Your task to perform on an android device: toggle location history Image 0: 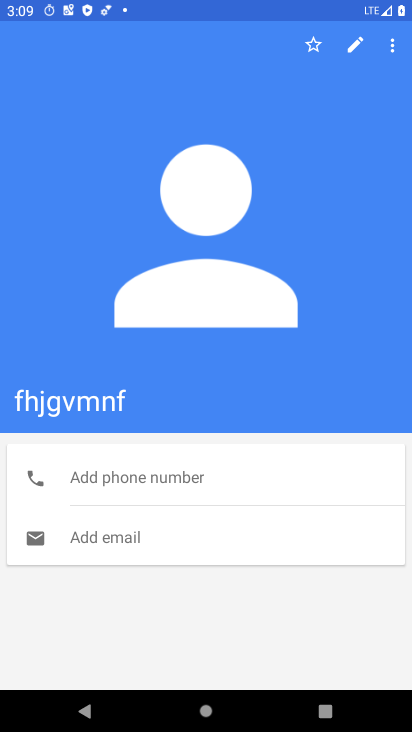
Step 0: press home button
Your task to perform on an android device: toggle location history Image 1: 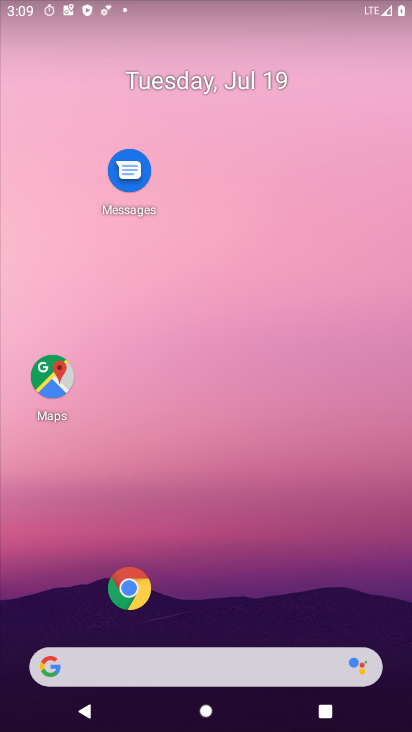
Step 1: drag from (31, 693) to (126, 208)
Your task to perform on an android device: toggle location history Image 2: 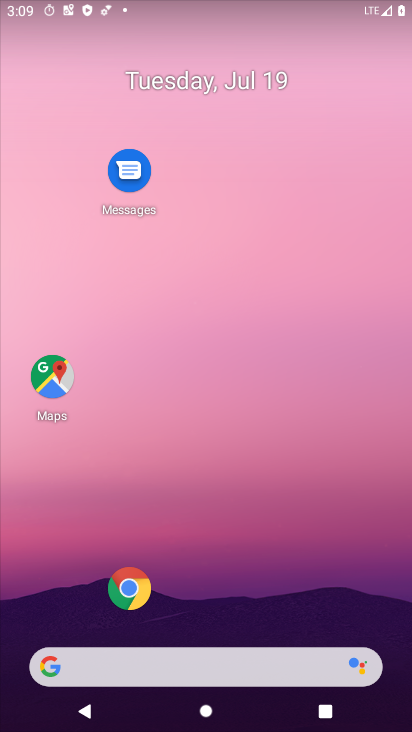
Step 2: drag from (6, 678) to (152, 54)
Your task to perform on an android device: toggle location history Image 3: 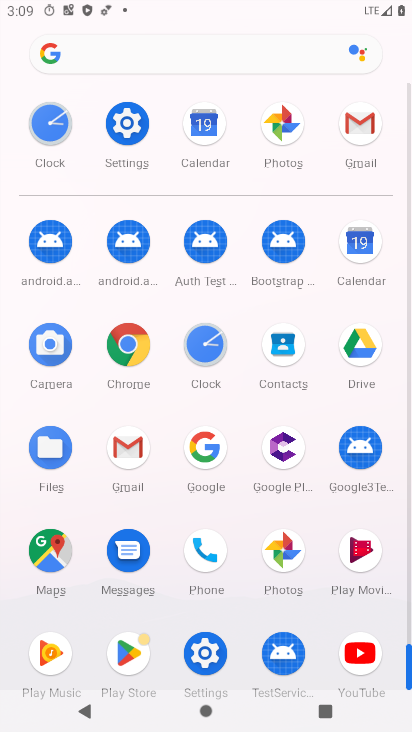
Step 3: click (211, 668)
Your task to perform on an android device: toggle location history Image 4: 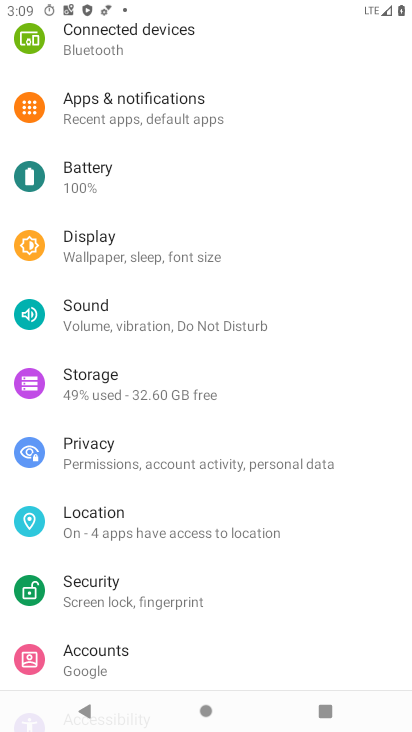
Step 4: click (110, 529)
Your task to perform on an android device: toggle location history Image 5: 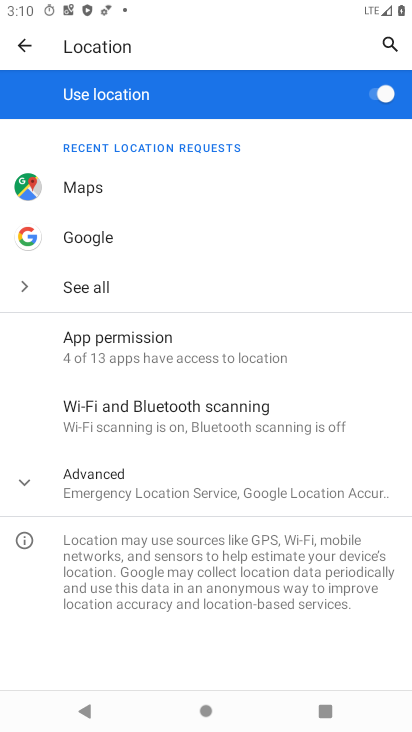
Step 5: task complete